Your task to perform on an android device: Search for the best gaming monitor on Best Buy Image 0: 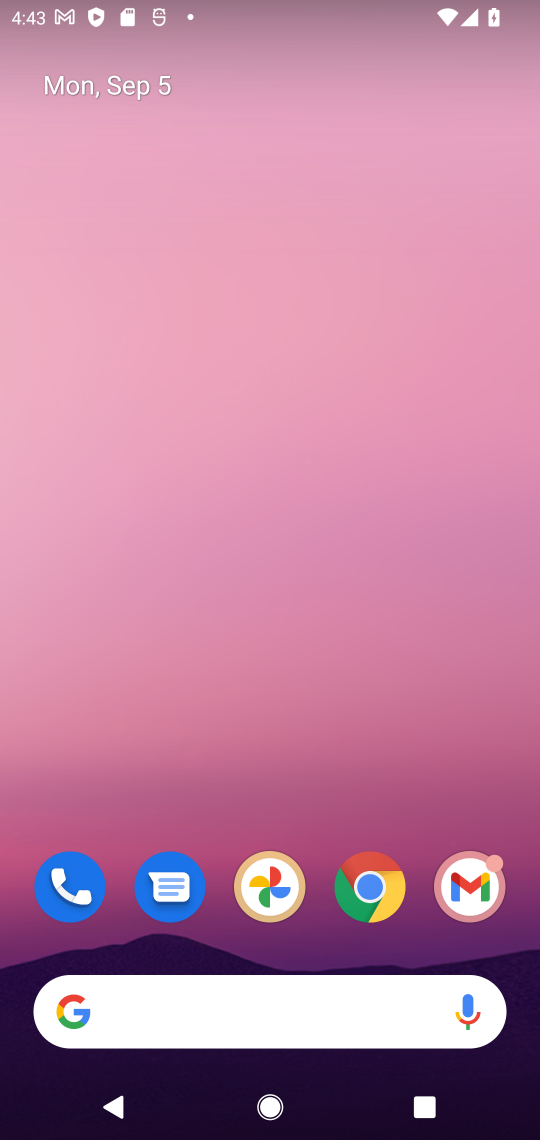
Step 0: drag from (292, 265) to (295, 0)
Your task to perform on an android device: Search for the best gaming monitor on Best Buy Image 1: 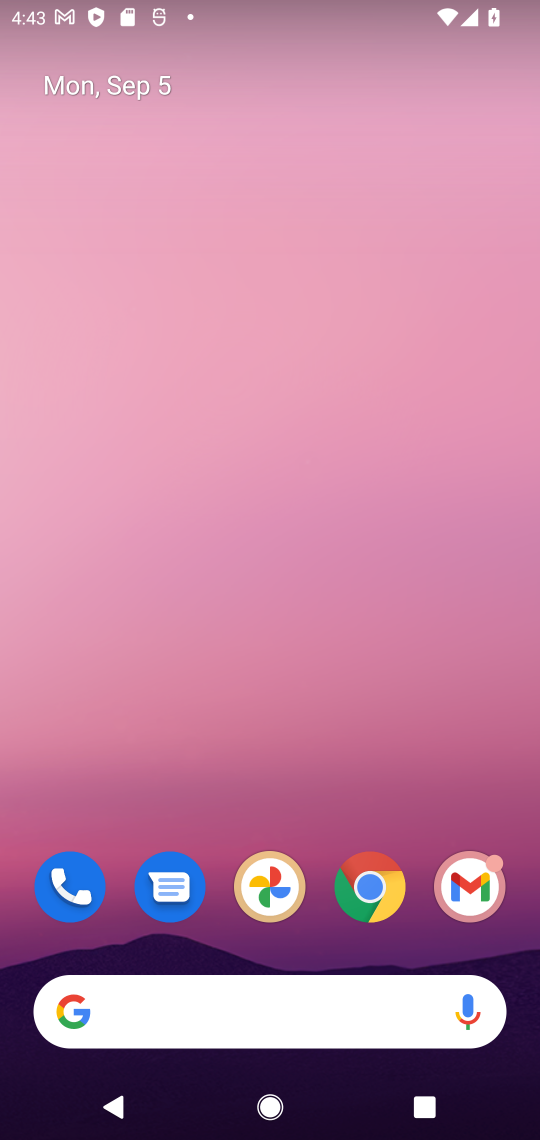
Step 1: drag from (333, 715) to (351, 19)
Your task to perform on an android device: Search for the best gaming monitor on Best Buy Image 2: 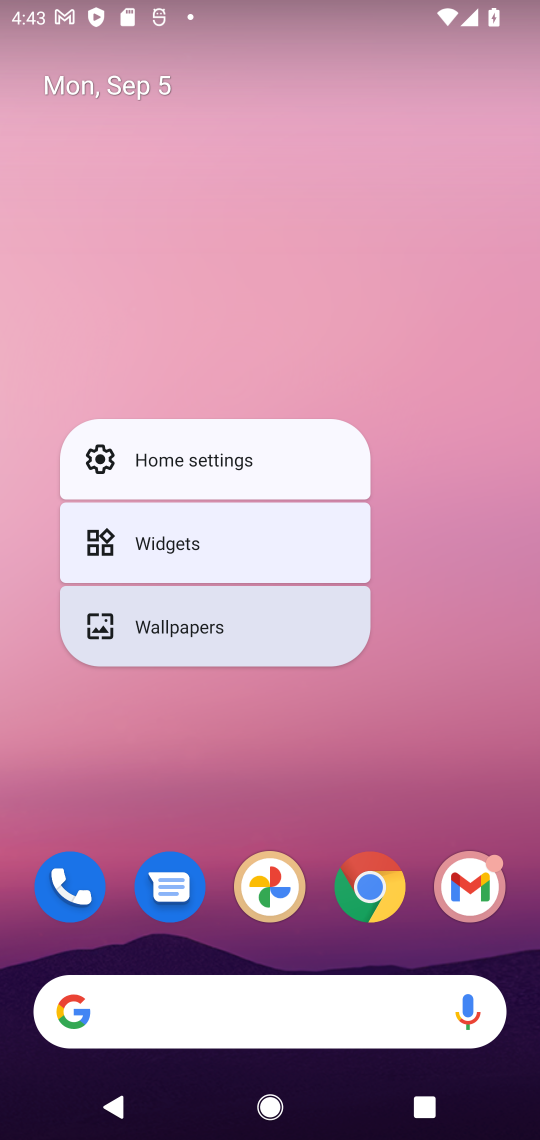
Step 2: click (417, 423)
Your task to perform on an android device: Search for the best gaming monitor on Best Buy Image 3: 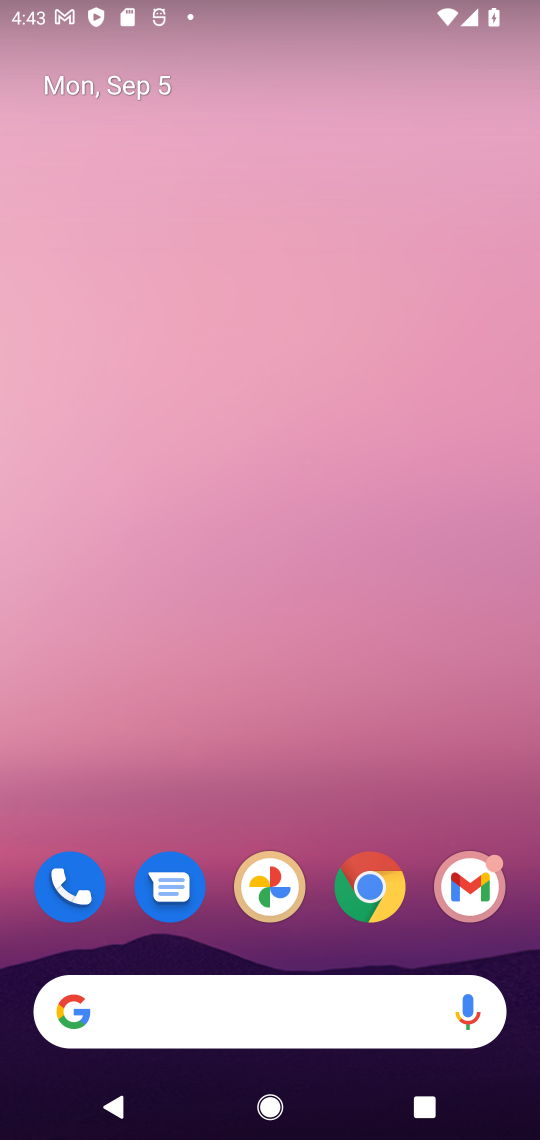
Step 3: drag from (330, 820) to (344, 56)
Your task to perform on an android device: Search for the best gaming monitor on Best Buy Image 4: 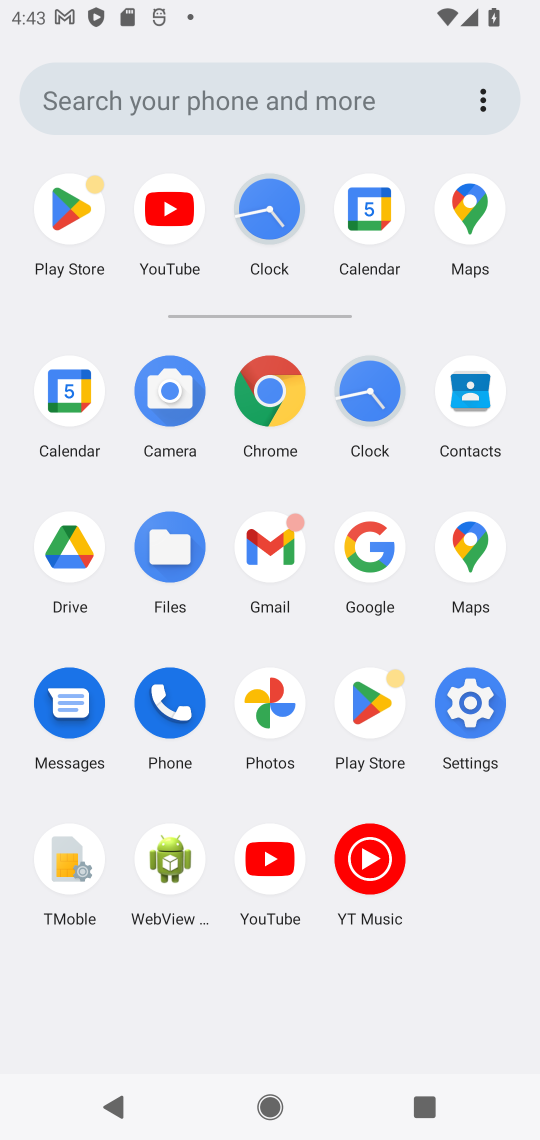
Step 4: click (273, 394)
Your task to perform on an android device: Search for the best gaming monitor on Best Buy Image 5: 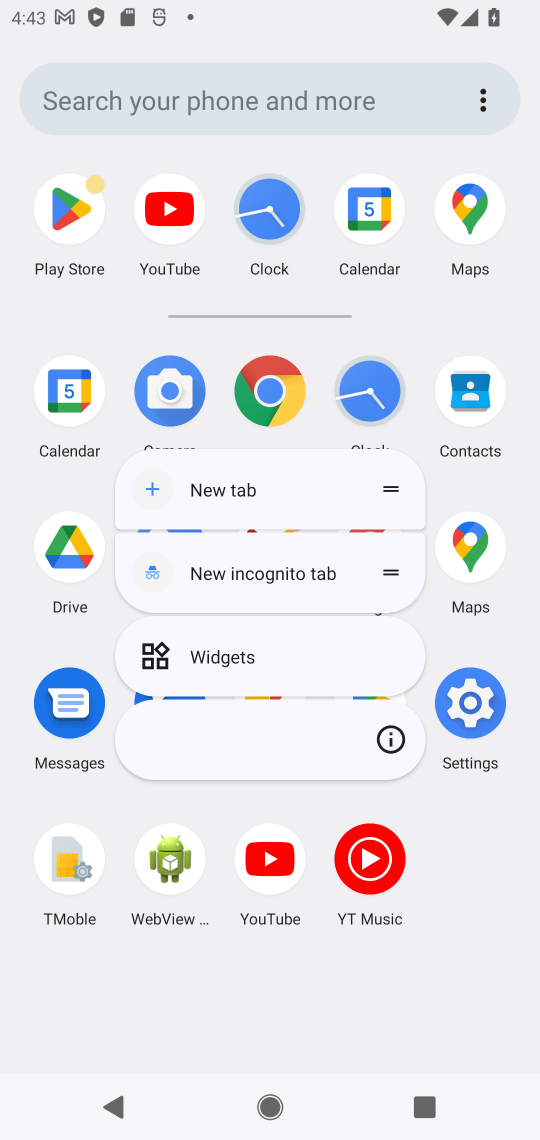
Step 5: click (265, 392)
Your task to perform on an android device: Search for the best gaming monitor on Best Buy Image 6: 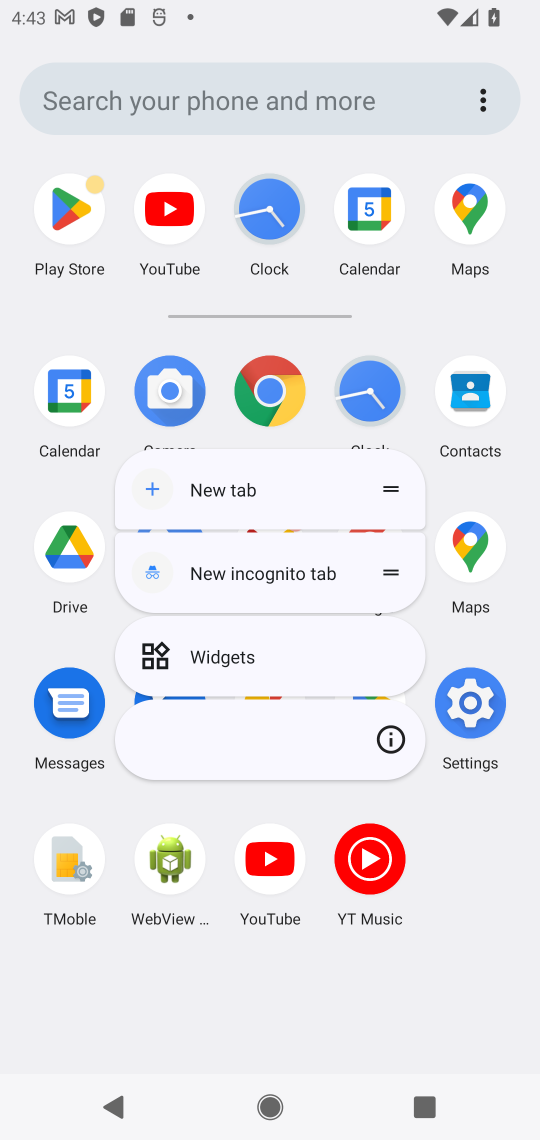
Step 6: click (272, 408)
Your task to perform on an android device: Search for the best gaming monitor on Best Buy Image 7: 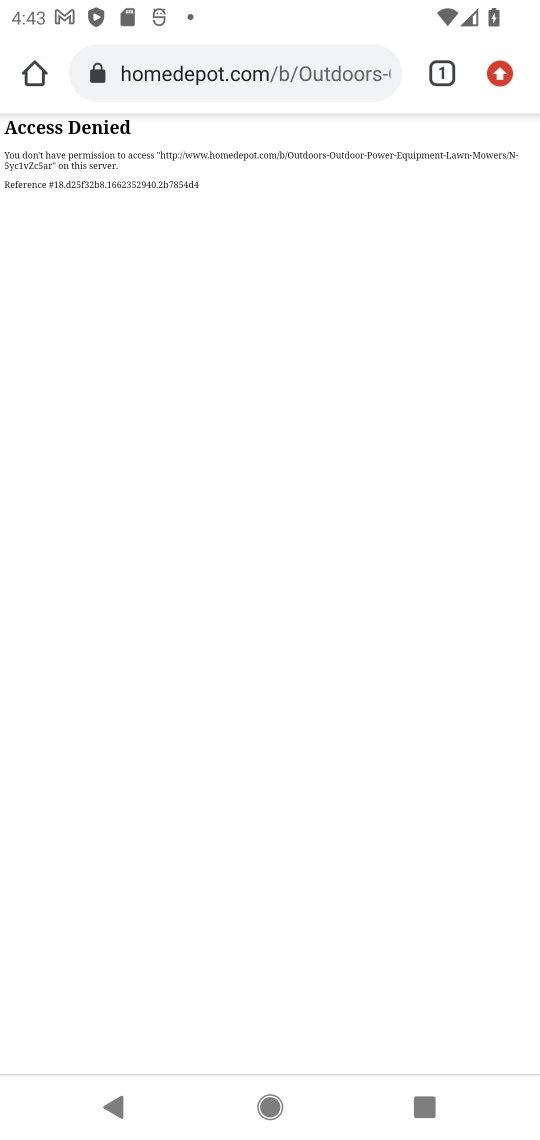
Step 7: click (293, 82)
Your task to perform on an android device: Search for the best gaming monitor on Best Buy Image 8: 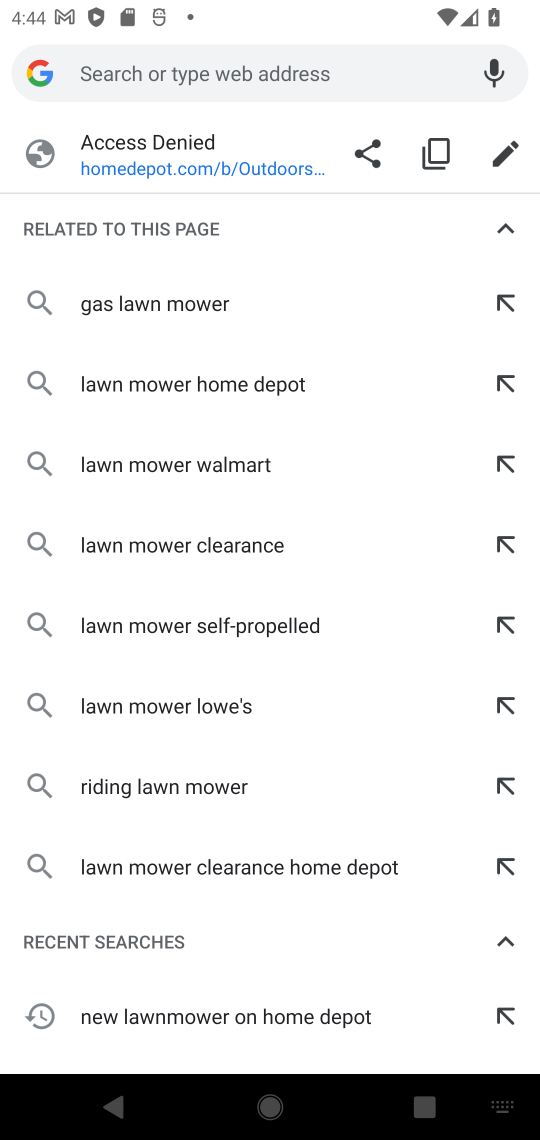
Step 8: click (290, 75)
Your task to perform on an android device: Search for the best gaming monitor on Best Buy Image 9: 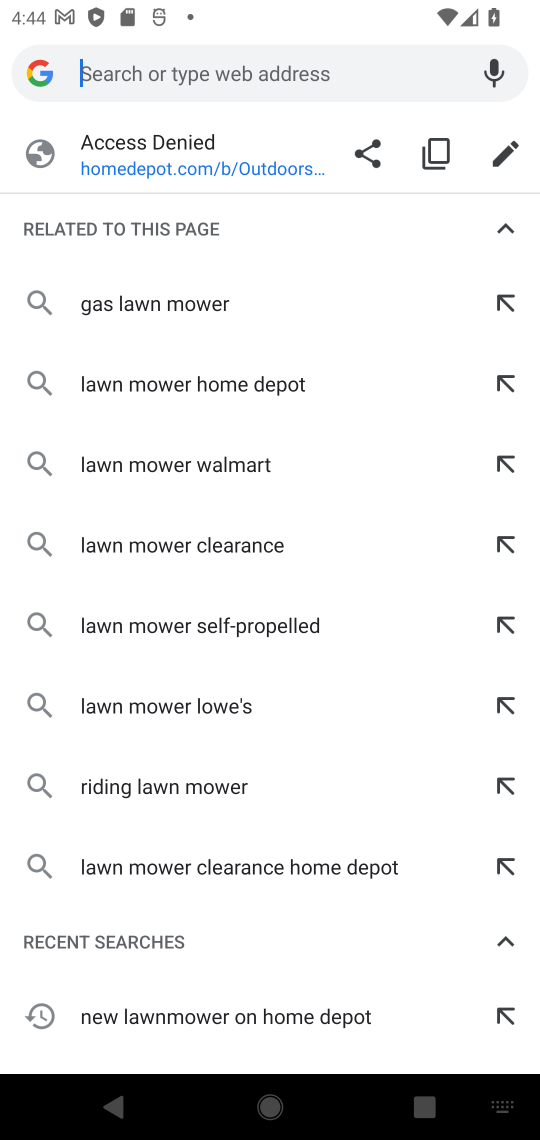
Step 9: type "best gaming monitor on Best Buy"
Your task to perform on an android device: Search for the best gaming monitor on Best Buy Image 10: 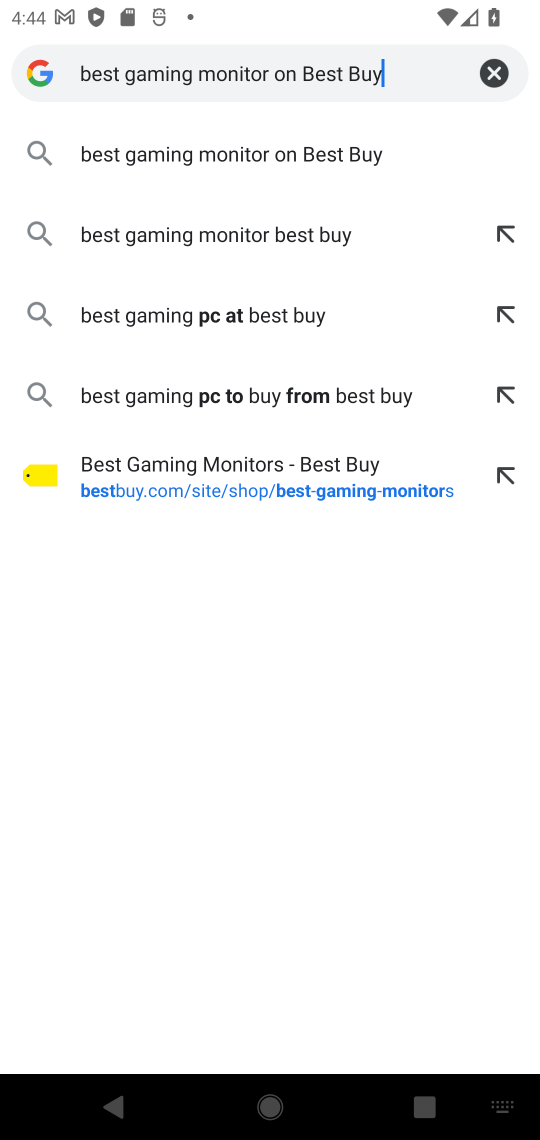
Step 10: press enter
Your task to perform on an android device: Search for the best gaming monitor on Best Buy Image 11: 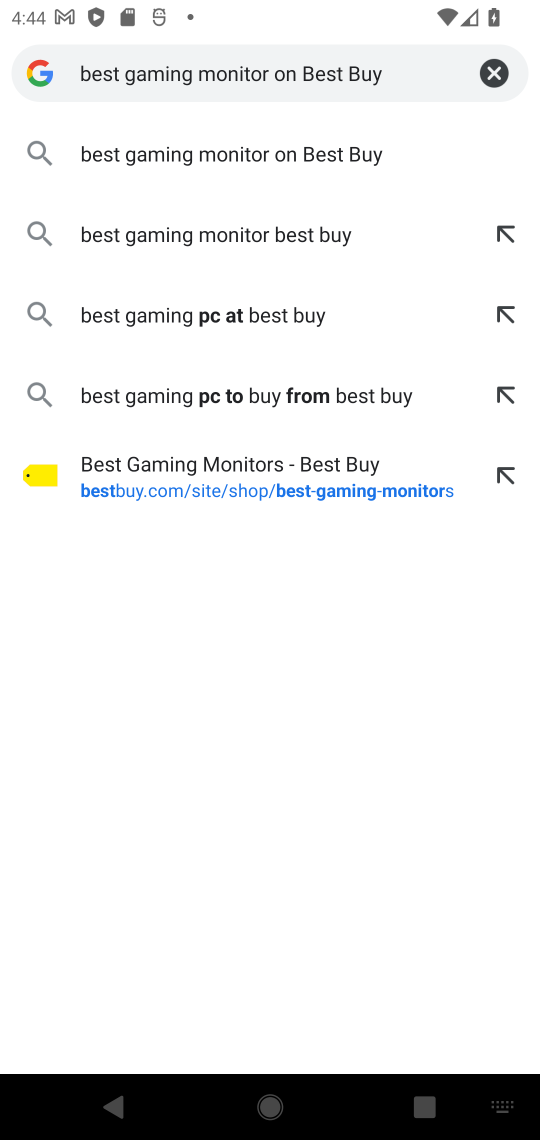
Step 11: type " "
Your task to perform on an android device: Search for the best gaming monitor on Best Buy Image 12: 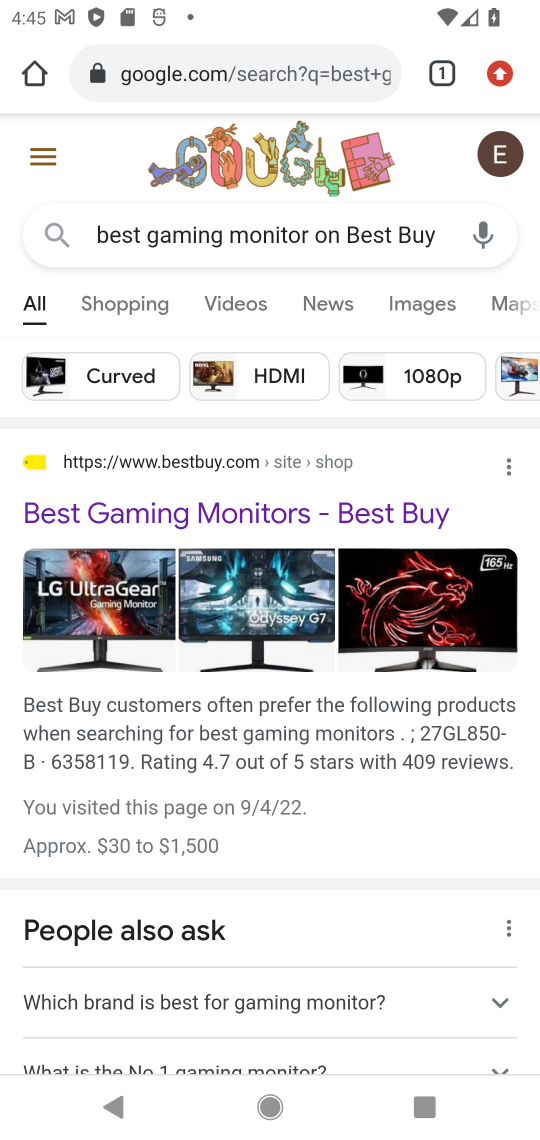
Step 12: click (223, 522)
Your task to perform on an android device: Search for the best gaming monitor on Best Buy Image 13: 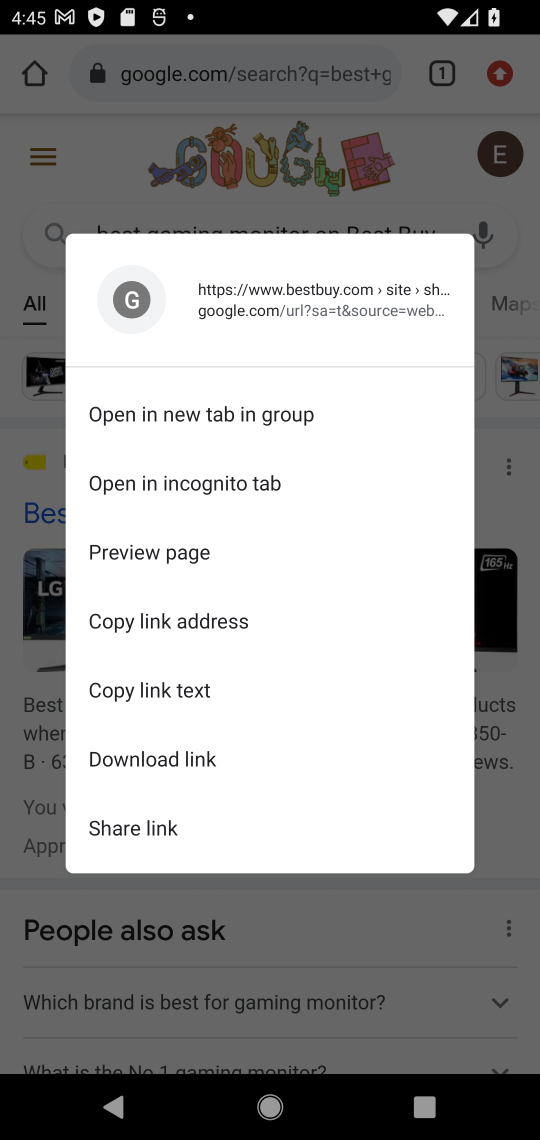
Step 13: click (509, 536)
Your task to perform on an android device: Search for the best gaming monitor on Best Buy Image 14: 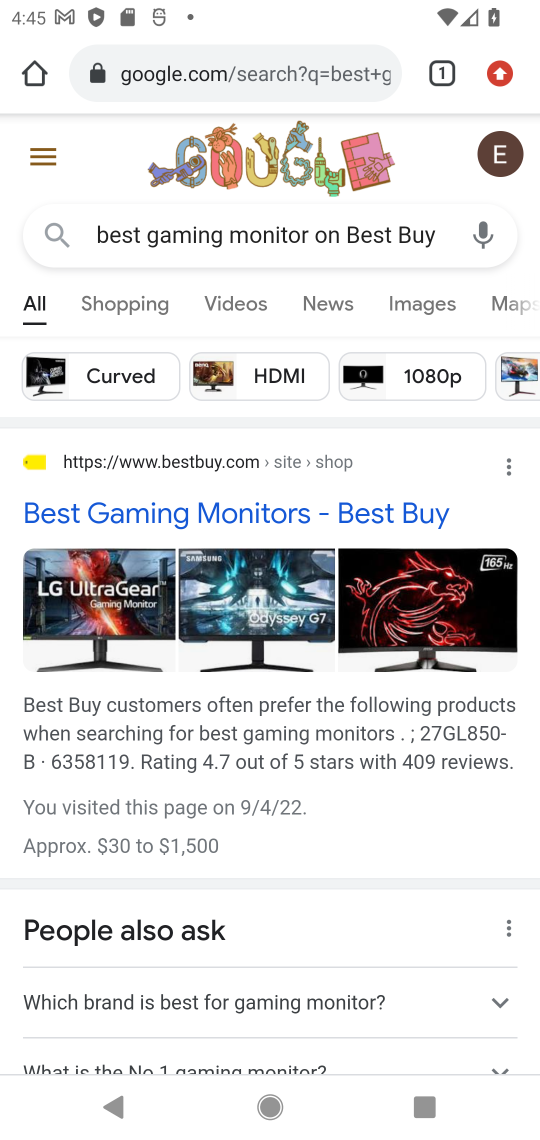
Step 14: click (227, 508)
Your task to perform on an android device: Search for the best gaming monitor on Best Buy Image 15: 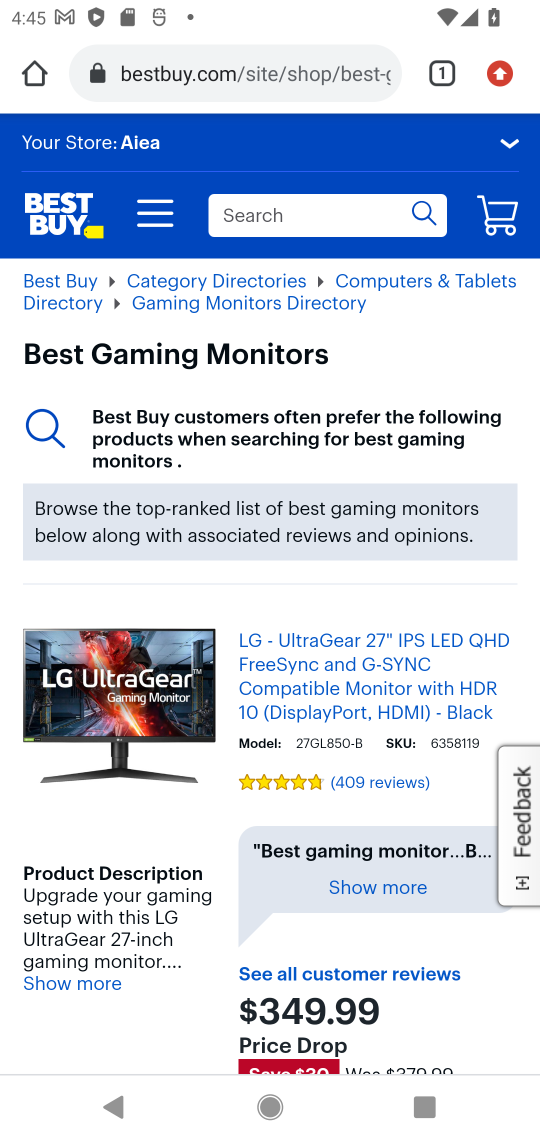
Step 15: task complete